Your task to perform on an android device: toggle sleep mode Image 0: 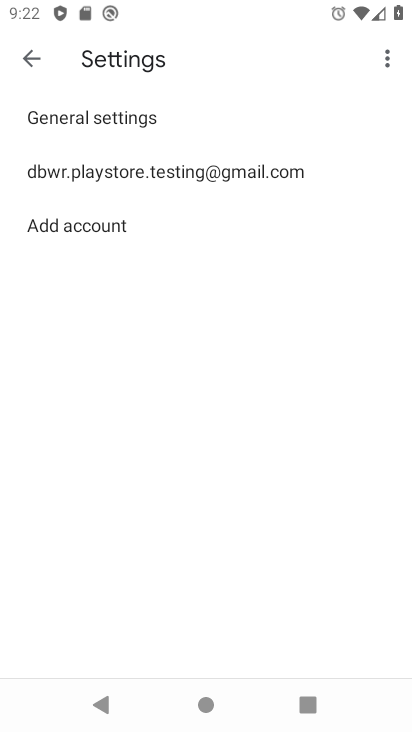
Step 0: click (24, 55)
Your task to perform on an android device: toggle sleep mode Image 1: 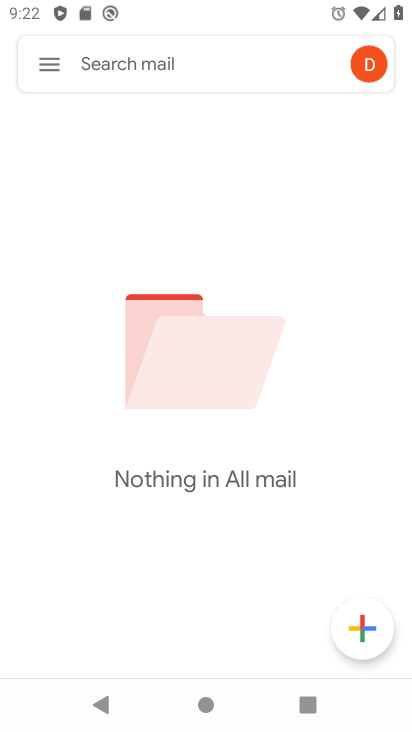
Step 1: click (44, 61)
Your task to perform on an android device: toggle sleep mode Image 2: 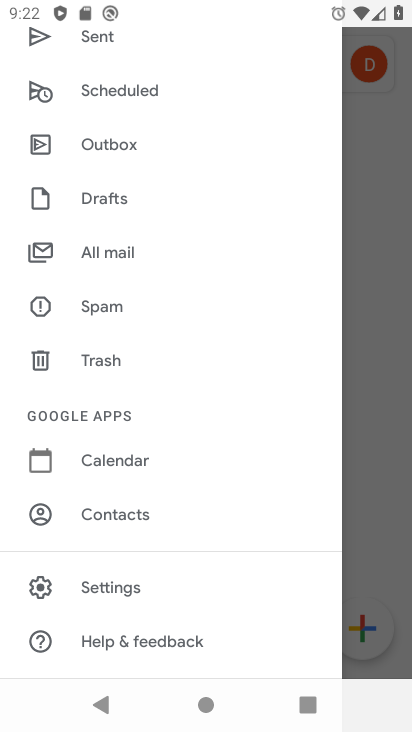
Step 2: press back button
Your task to perform on an android device: toggle sleep mode Image 3: 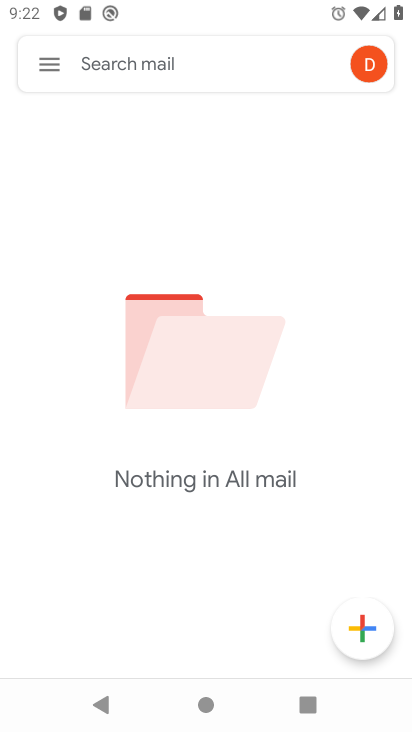
Step 3: press back button
Your task to perform on an android device: toggle sleep mode Image 4: 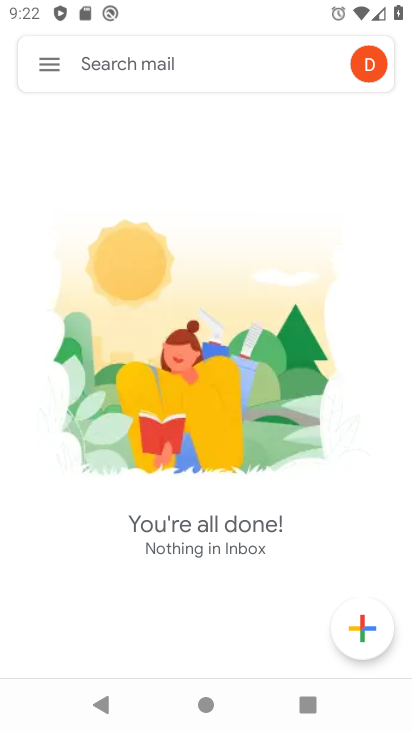
Step 4: press home button
Your task to perform on an android device: toggle sleep mode Image 5: 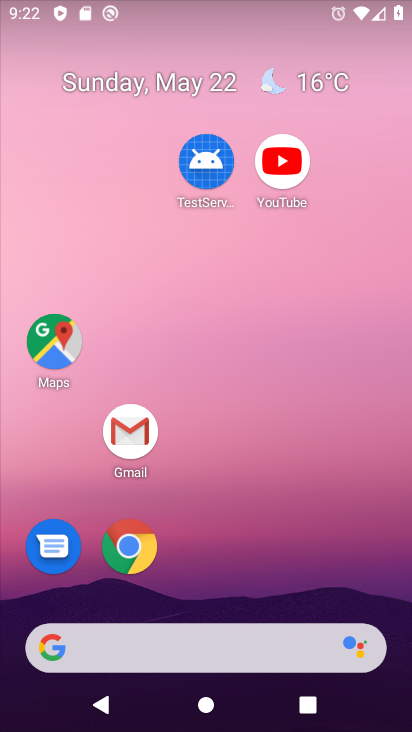
Step 5: drag from (268, 710) to (137, 15)
Your task to perform on an android device: toggle sleep mode Image 6: 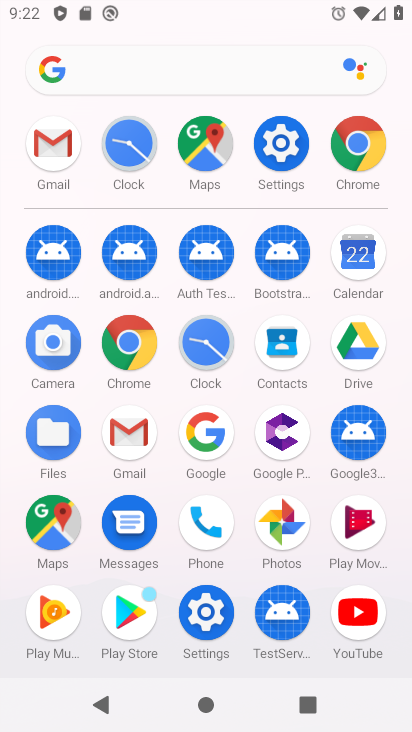
Step 6: click (204, 617)
Your task to perform on an android device: toggle sleep mode Image 7: 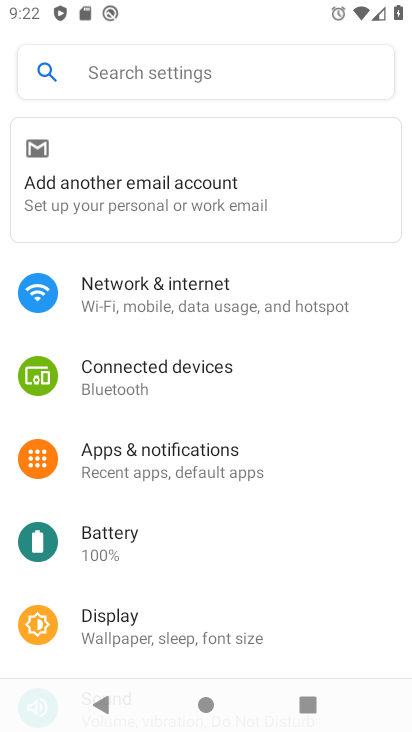
Step 7: click (109, 623)
Your task to perform on an android device: toggle sleep mode Image 8: 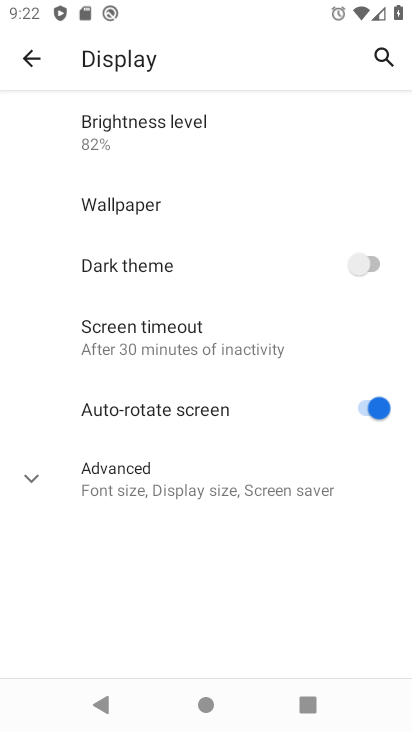
Step 8: click (149, 338)
Your task to perform on an android device: toggle sleep mode Image 9: 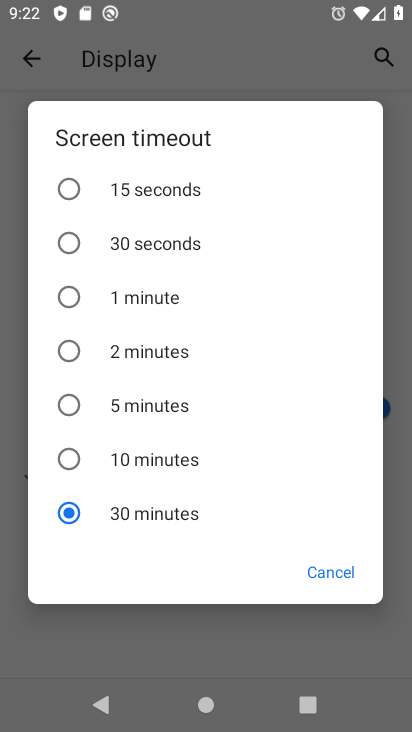
Step 9: click (73, 350)
Your task to perform on an android device: toggle sleep mode Image 10: 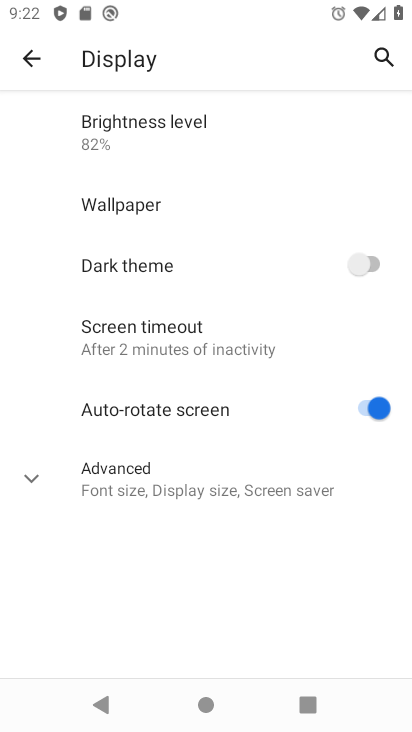
Step 10: task complete